Your task to perform on an android device: Toggle the flashlight Image 0: 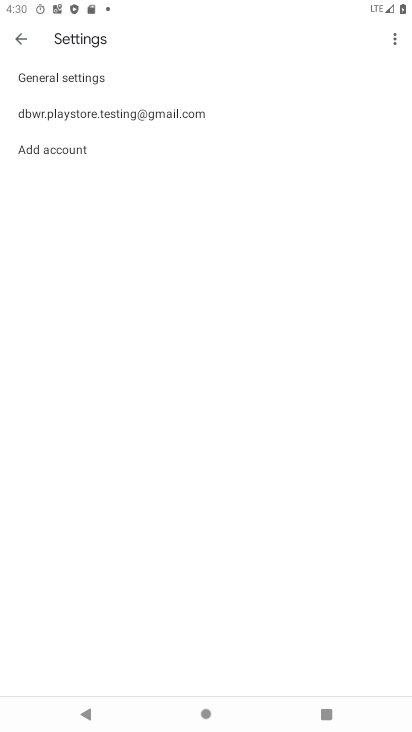
Step 0: press home button
Your task to perform on an android device: Toggle the flashlight Image 1: 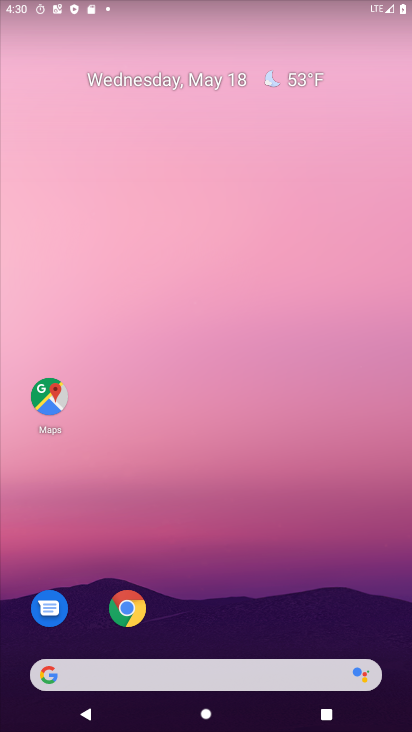
Step 1: task complete